Your task to perform on an android device: Go to accessibility settings Image 0: 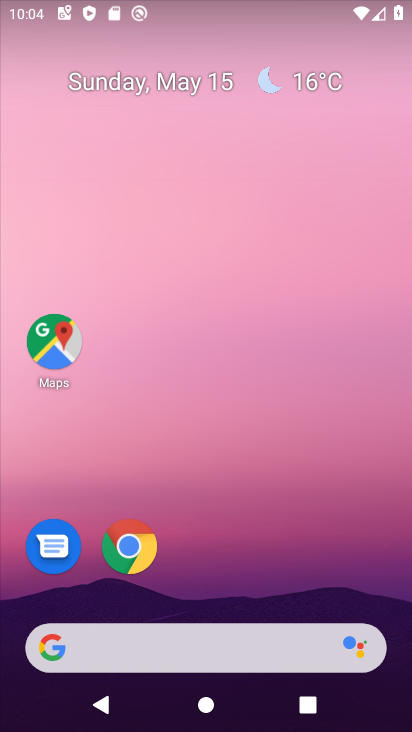
Step 0: drag from (249, 678) to (216, 256)
Your task to perform on an android device: Go to accessibility settings Image 1: 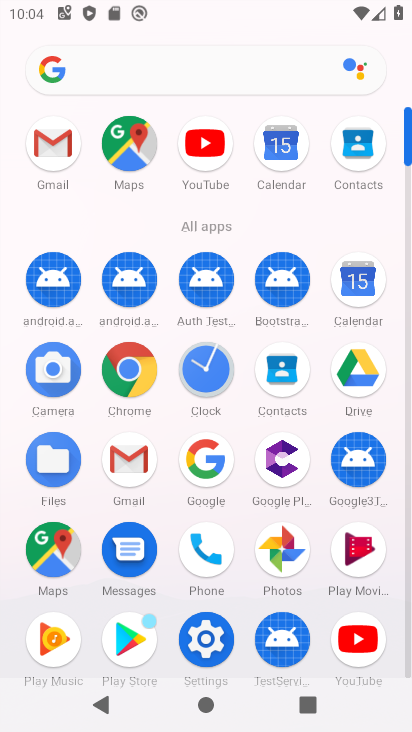
Step 1: click (208, 638)
Your task to perform on an android device: Go to accessibility settings Image 2: 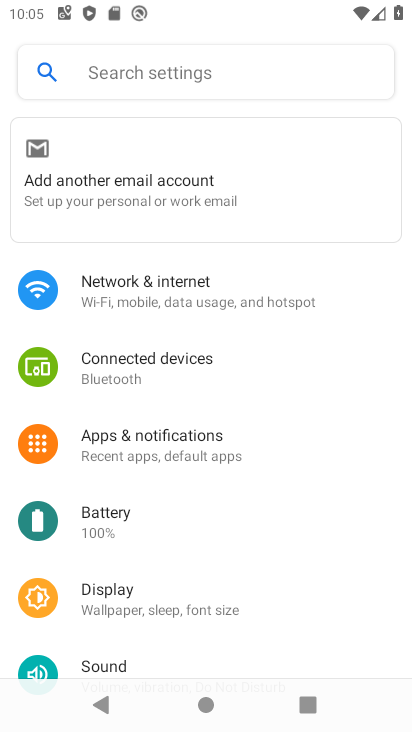
Step 2: drag from (157, 534) to (138, 120)
Your task to perform on an android device: Go to accessibility settings Image 3: 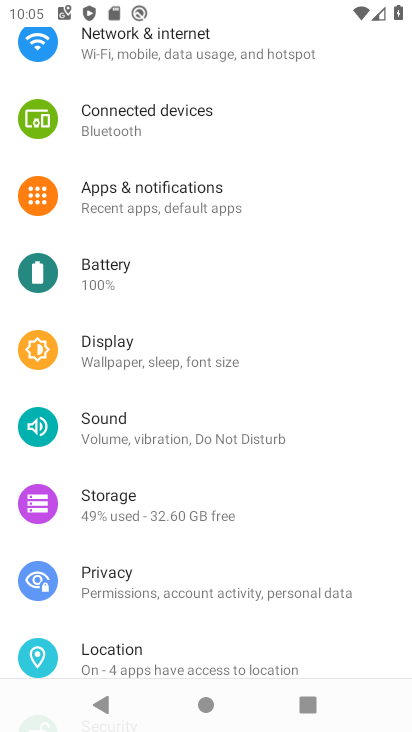
Step 3: drag from (117, 574) to (131, 52)
Your task to perform on an android device: Go to accessibility settings Image 4: 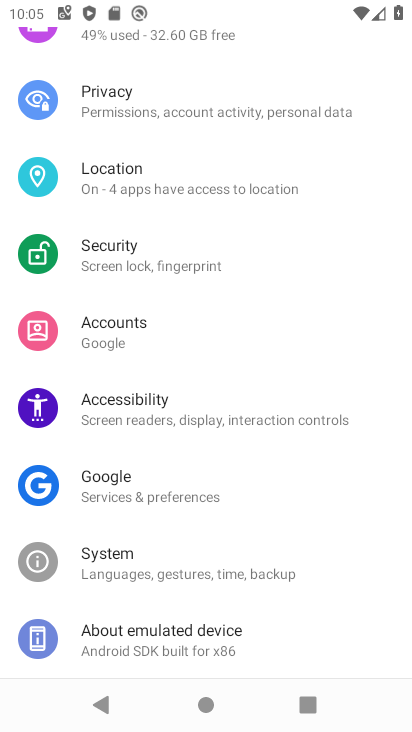
Step 4: drag from (118, 506) to (172, 65)
Your task to perform on an android device: Go to accessibility settings Image 5: 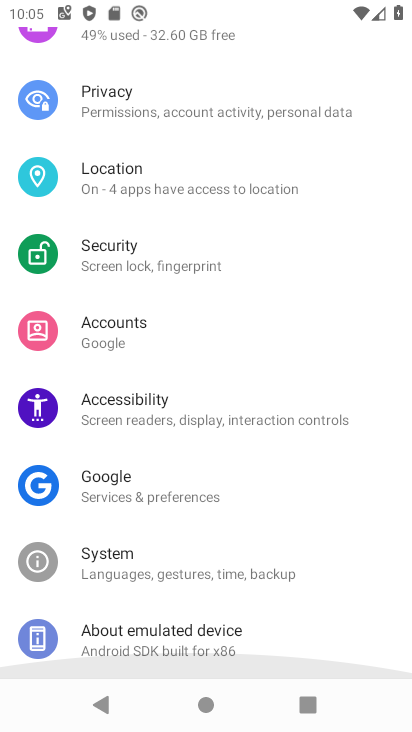
Step 5: drag from (162, 494) to (235, 63)
Your task to perform on an android device: Go to accessibility settings Image 6: 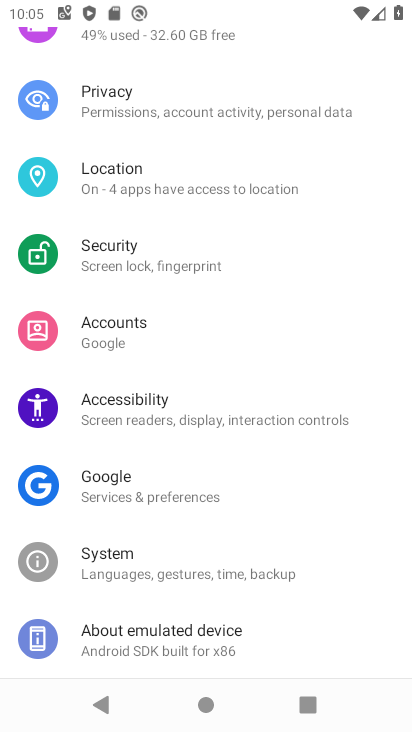
Step 6: click (110, 419)
Your task to perform on an android device: Go to accessibility settings Image 7: 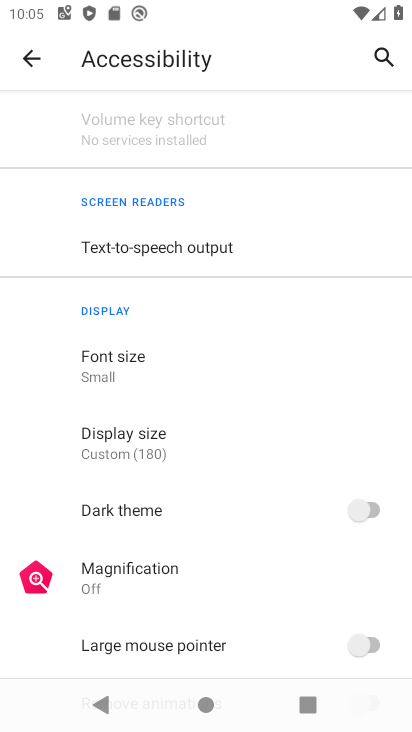
Step 7: task complete